Your task to perform on an android device: toggle data saver in the chrome app Image 0: 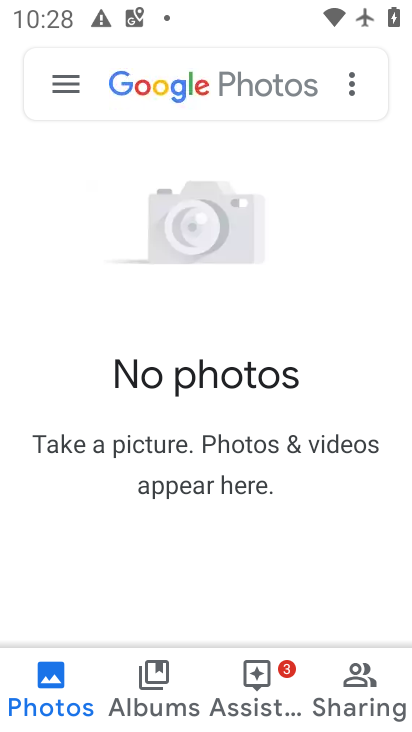
Step 0: press home button
Your task to perform on an android device: toggle data saver in the chrome app Image 1: 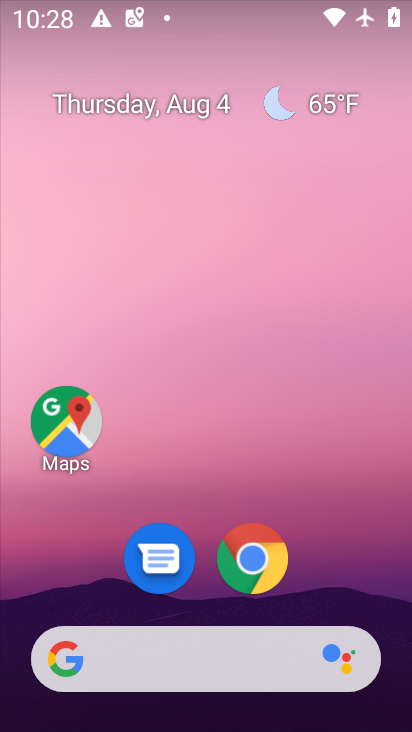
Step 1: drag from (347, 562) to (388, 124)
Your task to perform on an android device: toggle data saver in the chrome app Image 2: 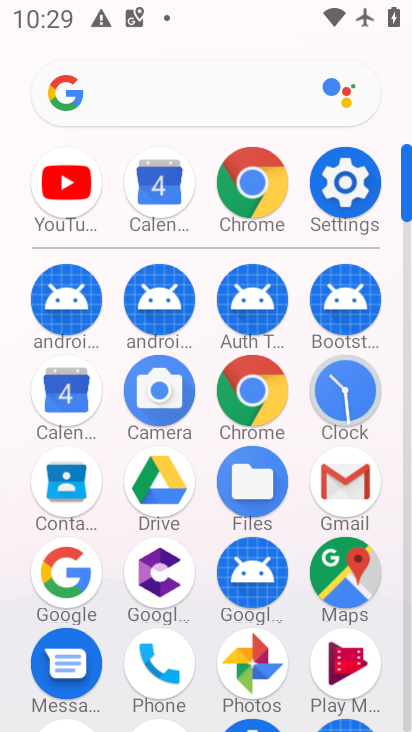
Step 2: click (252, 391)
Your task to perform on an android device: toggle data saver in the chrome app Image 3: 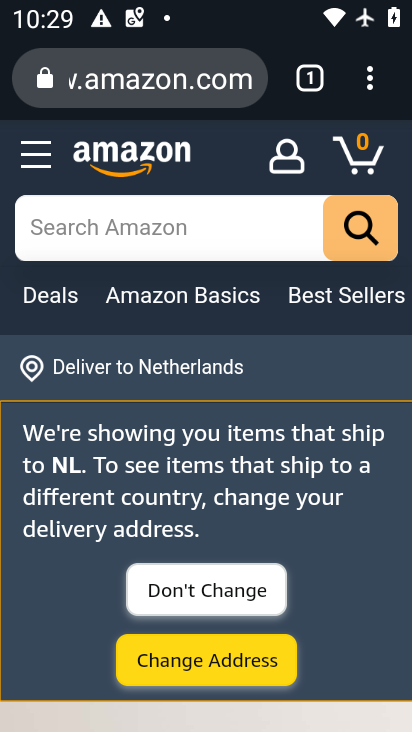
Step 3: click (366, 79)
Your task to perform on an android device: toggle data saver in the chrome app Image 4: 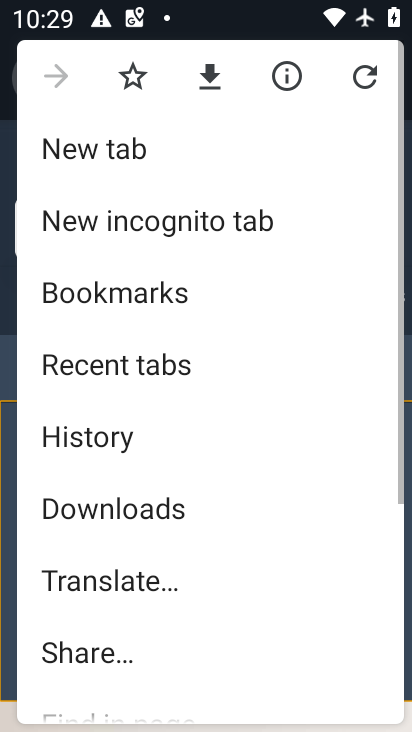
Step 4: drag from (189, 607) to (260, 158)
Your task to perform on an android device: toggle data saver in the chrome app Image 5: 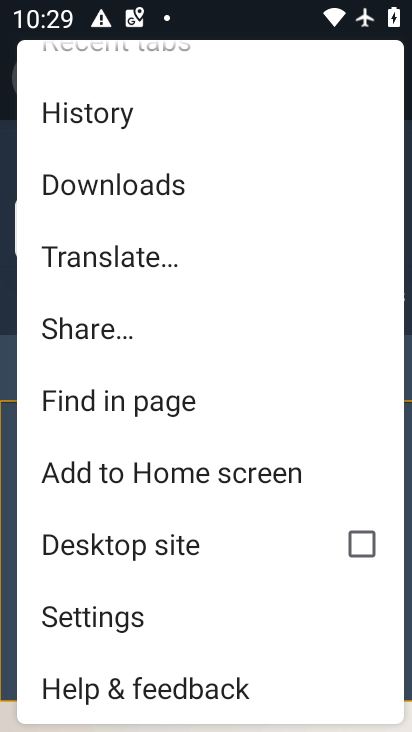
Step 5: click (68, 627)
Your task to perform on an android device: toggle data saver in the chrome app Image 6: 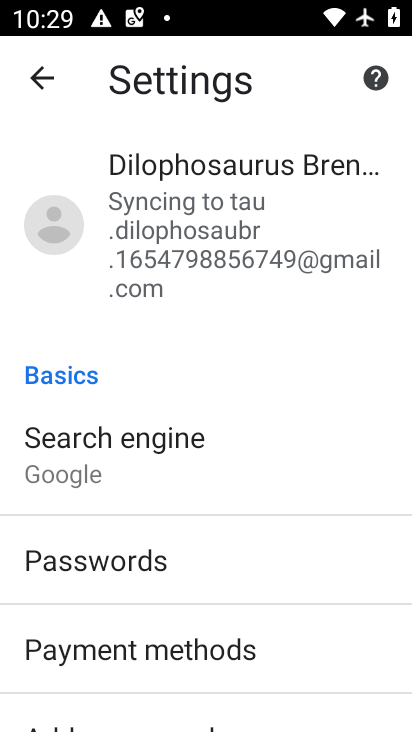
Step 6: drag from (304, 554) to (344, 129)
Your task to perform on an android device: toggle data saver in the chrome app Image 7: 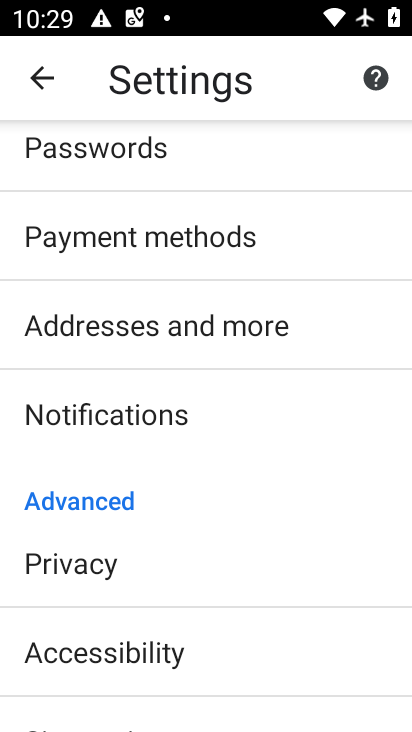
Step 7: drag from (212, 561) to (310, 233)
Your task to perform on an android device: toggle data saver in the chrome app Image 8: 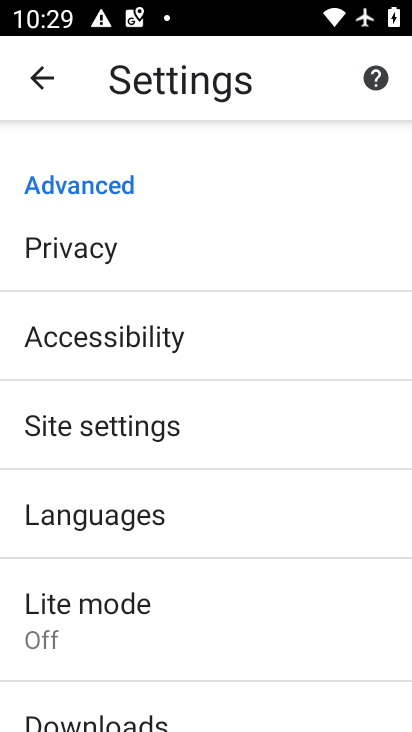
Step 8: drag from (170, 617) to (280, 337)
Your task to perform on an android device: toggle data saver in the chrome app Image 9: 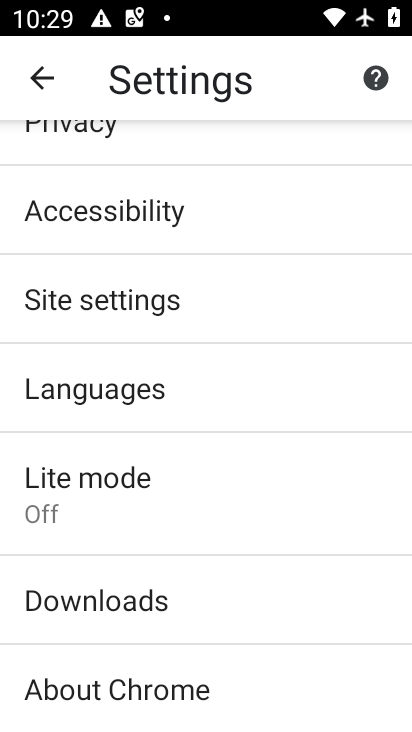
Step 9: click (96, 516)
Your task to perform on an android device: toggle data saver in the chrome app Image 10: 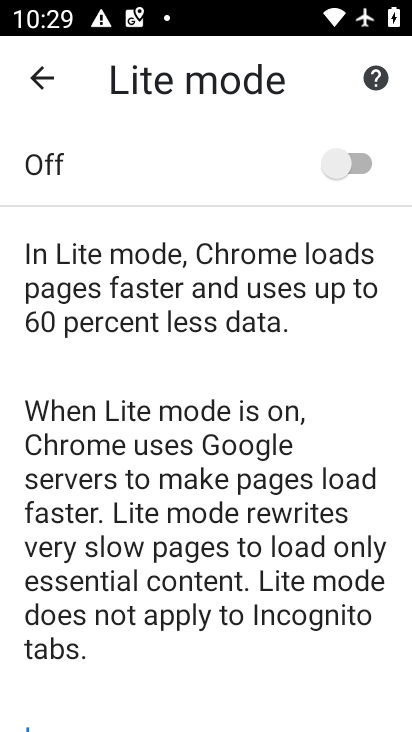
Step 10: click (344, 149)
Your task to perform on an android device: toggle data saver in the chrome app Image 11: 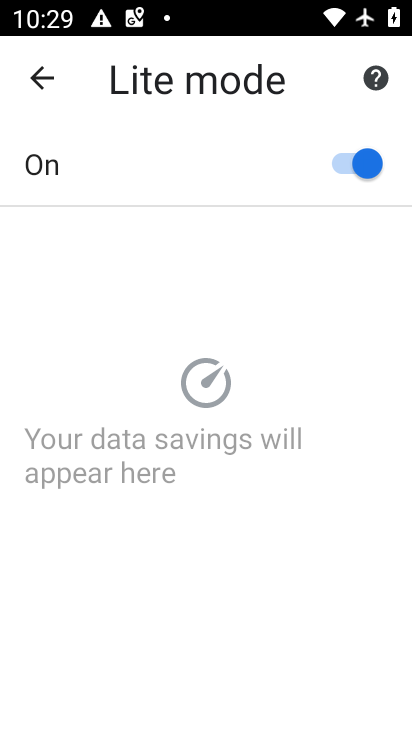
Step 11: task complete